Your task to perform on an android device: turn on improve location accuracy Image 0: 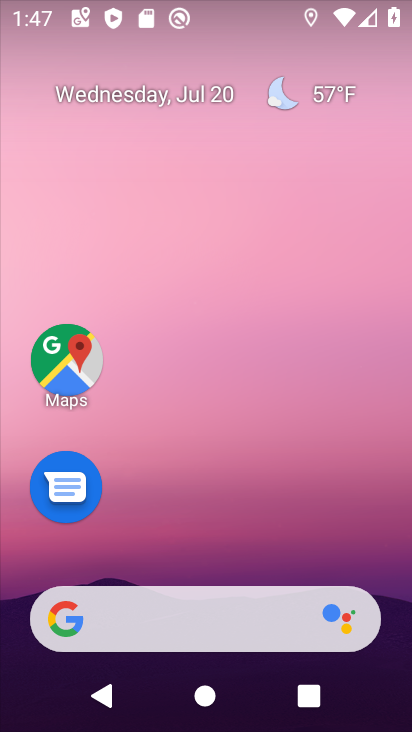
Step 0: drag from (174, 534) to (282, 3)
Your task to perform on an android device: turn on improve location accuracy Image 1: 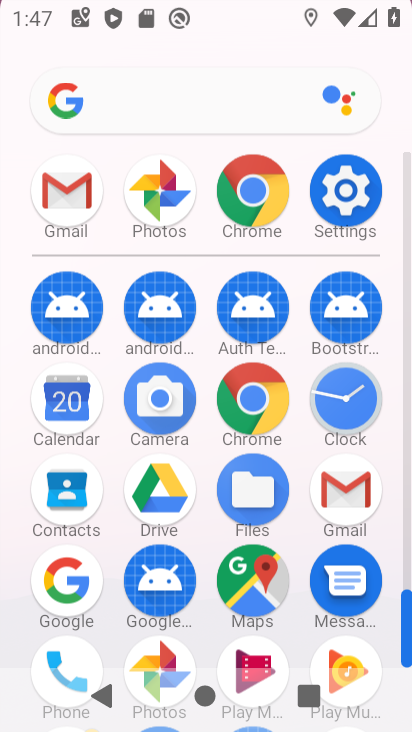
Step 1: click (347, 185)
Your task to perform on an android device: turn on improve location accuracy Image 2: 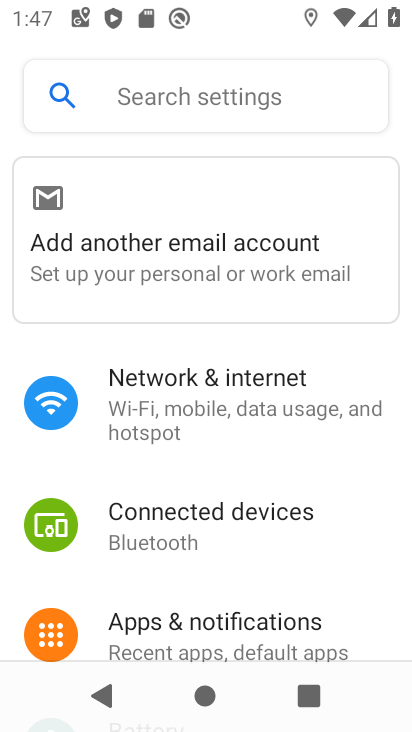
Step 2: drag from (176, 599) to (197, 80)
Your task to perform on an android device: turn on improve location accuracy Image 3: 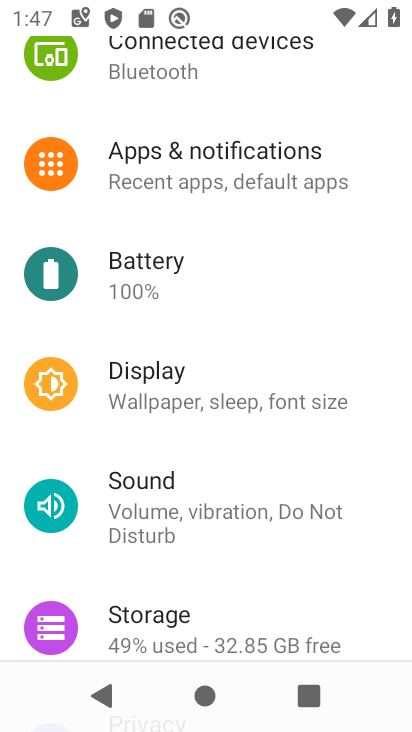
Step 3: drag from (230, 613) to (217, 143)
Your task to perform on an android device: turn on improve location accuracy Image 4: 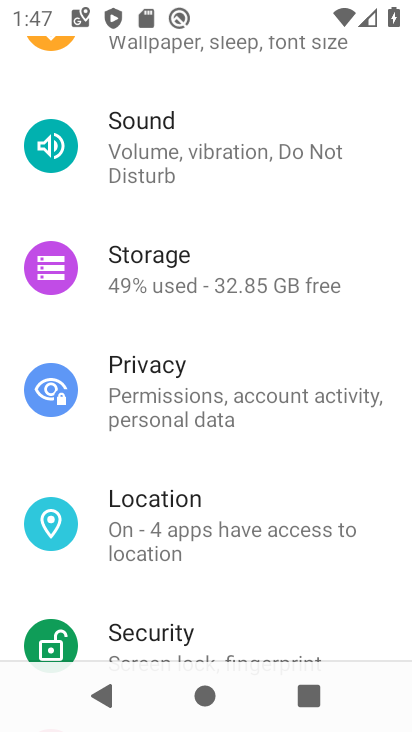
Step 4: click (143, 531)
Your task to perform on an android device: turn on improve location accuracy Image 5: 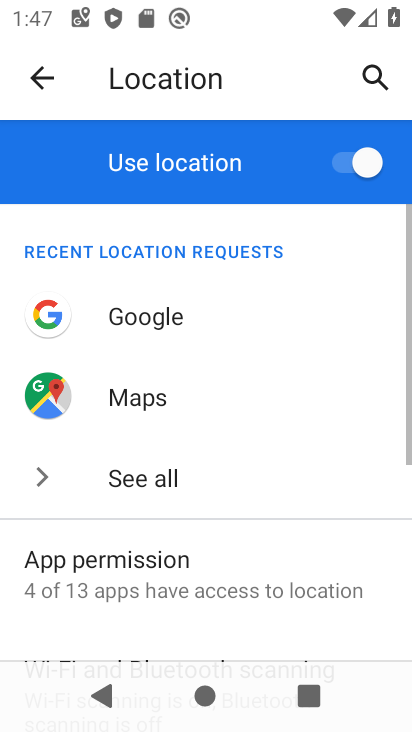
Step 5: drag from (136, 585) to (223, 22)
Your task to perform on an android device: turn on improve location accuracy Image 6: 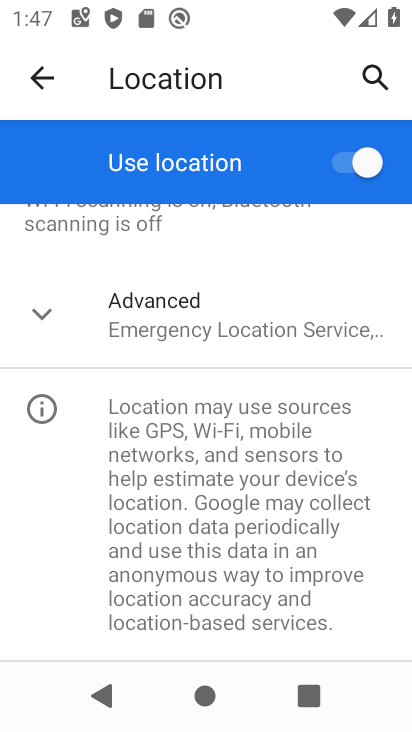
Step 6: click (206, 315)
Your task to perform on an android device: turn on improve location accuracy Image 7: 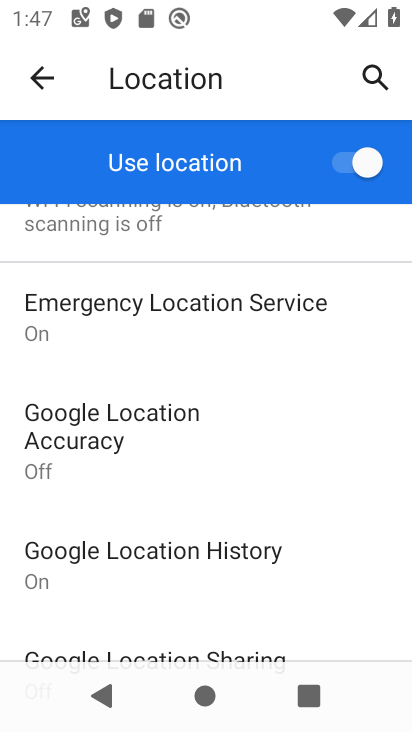
Step 7: click (155, 429)
Your task to perform on an android device: turn on improve location accuracy Image 8: 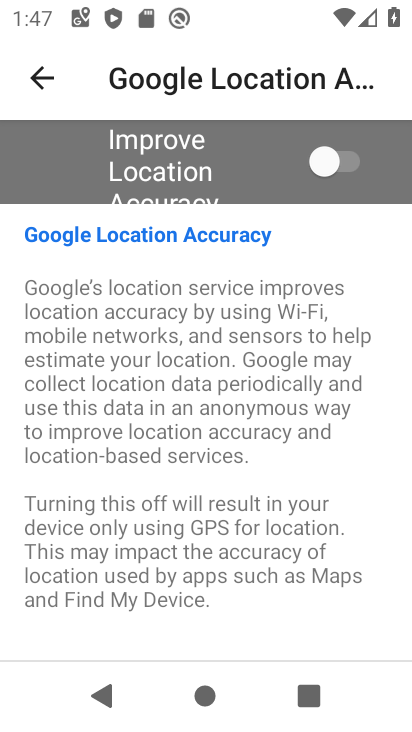
Step 8: click (322, 156)
Your task to perform on an android device: turn on improve location accuracy Image 9: 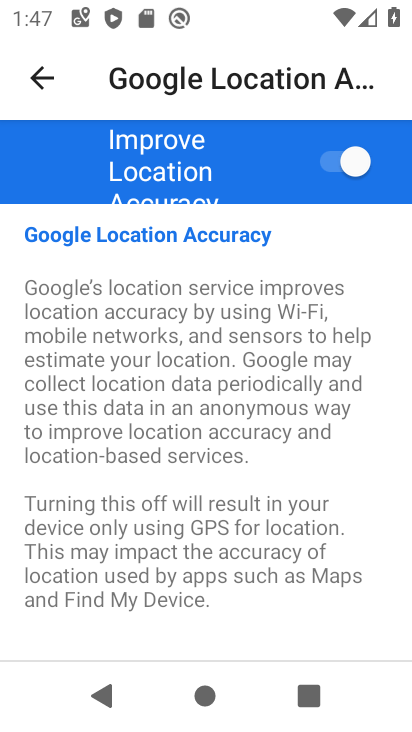
Step 9: task complete